Your task to perform on an android device: check data usage Image 0: 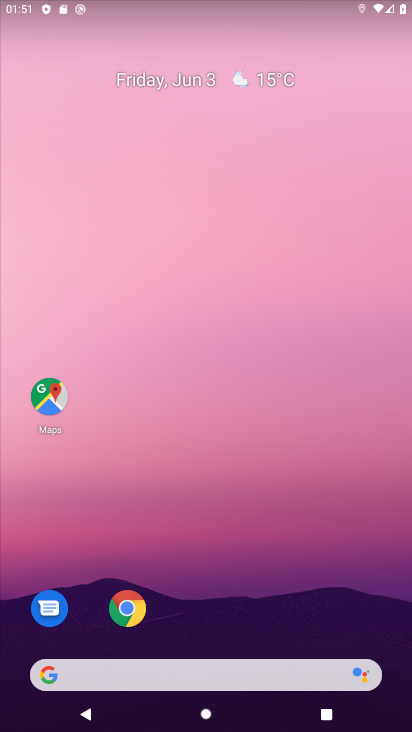
Step 0: drag from (108, 293) to (113, 144)
Your task to perform on an android device: check data usage Image 1: 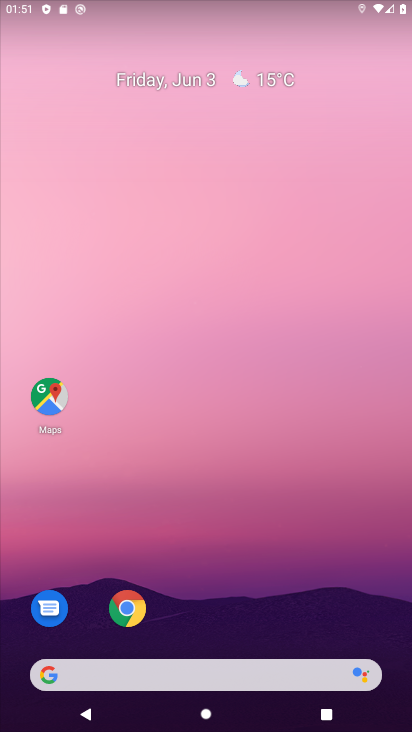
Step 1: drag from (216, 588) to (260, 196)
Your task to perform on an android device: check data usage Image 2: 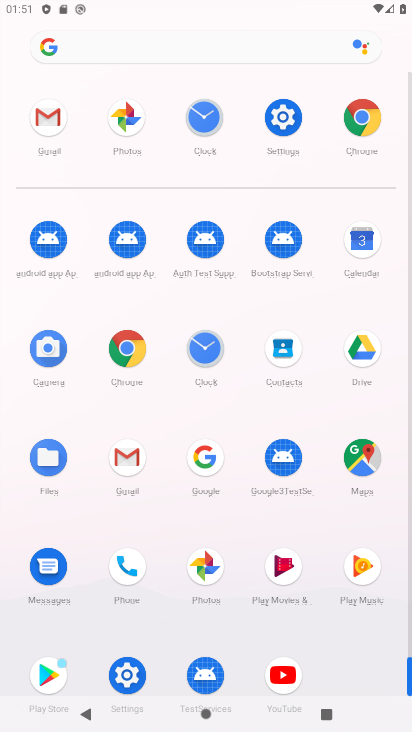
Step 2: click (277, 116)
Your task to perform on an android device: check data usage Image 3: 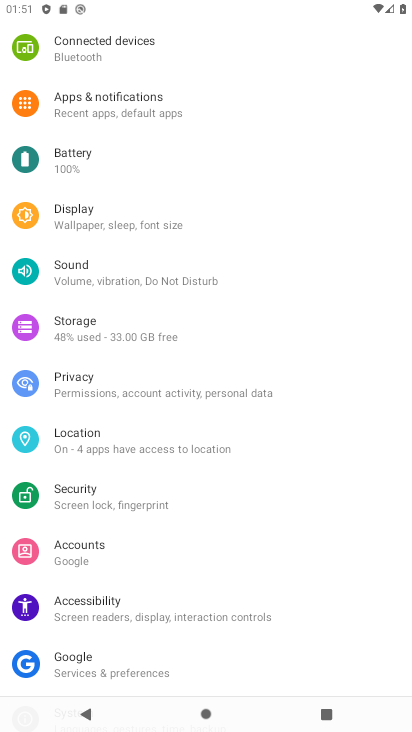
Step 3: click (91, 151)
Your task to perform on an android device: check data usage Image 4: 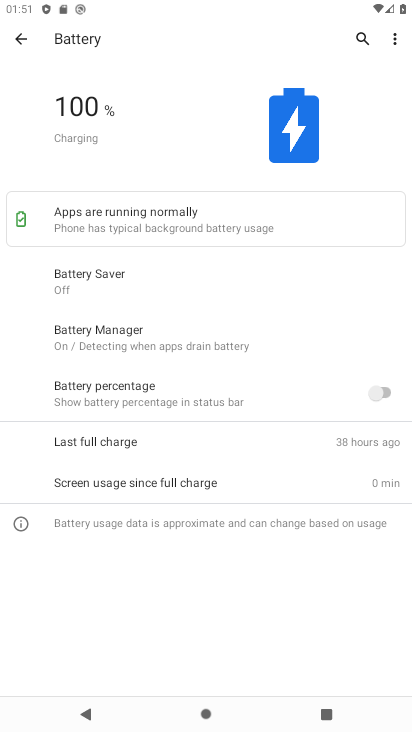
Step 4: click (14, 38)
Your task to perform on an android device: check data usage Image 5: 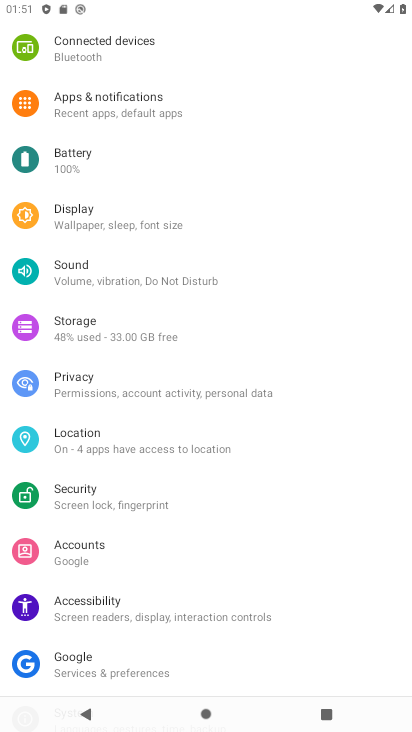
Step 5: drag from (144, 126) to (173, 504)
Your task to perform on an android device: check data usage Image 6: 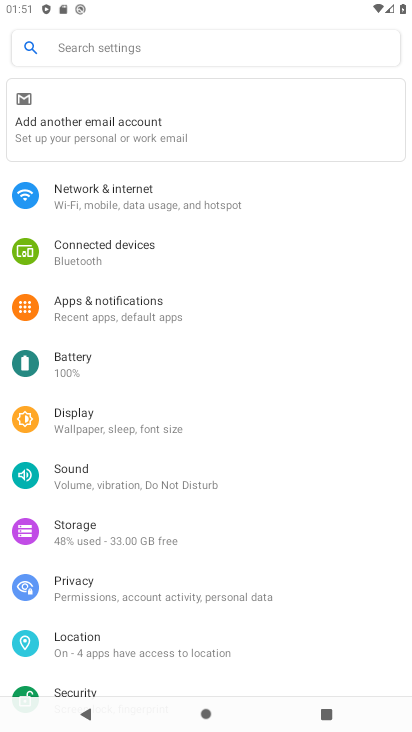
Step 6: click (128, 196)
Your task to perform on an android device: check data usage Image 7: 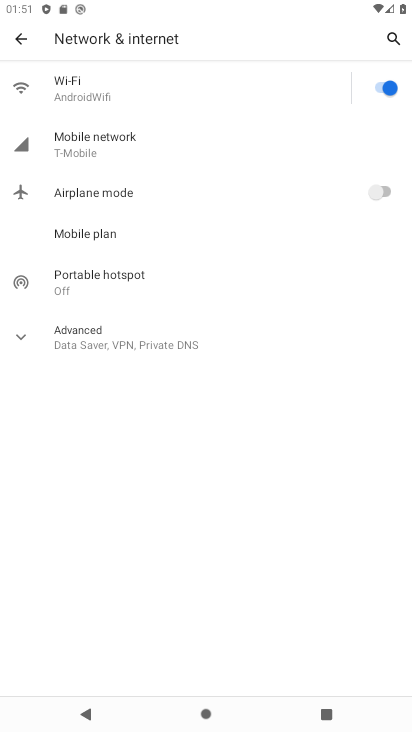
Step 7: click (132, 155)
Your task to perform on an android device: check data usage Image 8: 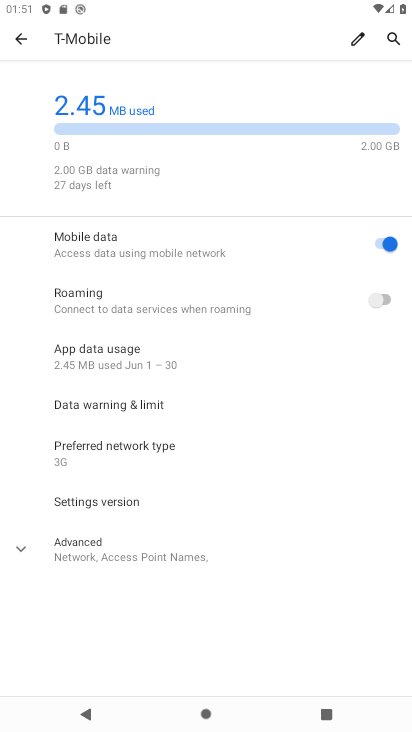
Step 8: task complete